Your task to perform on an android device: add a contact in the contacts app Image 0: 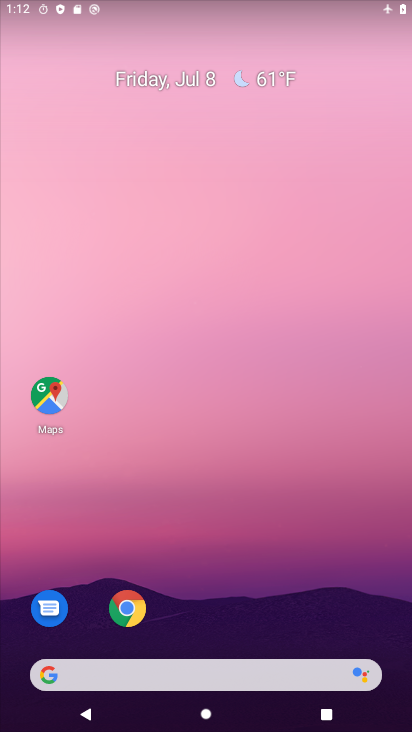
Step 0: drag from (225, 621) to (283, 119)
Your task to perform on an android device: add a contact in the contacts app Image 1: 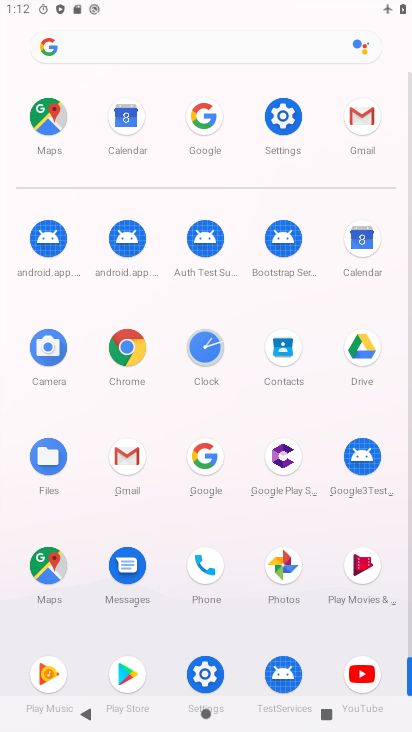
Step 1: click (277, 352)
Your task to perform on an android device: add a contact in the contacts app Image 2: 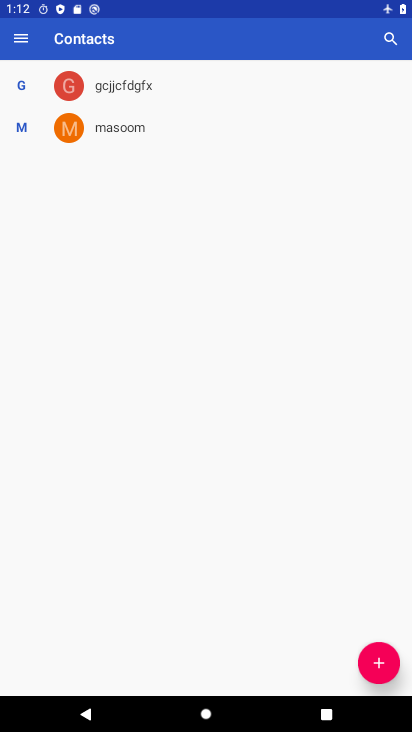
Step 2: click (379, 653)
Your task to perform on an android device: add a contact in the contacts app Image 3: 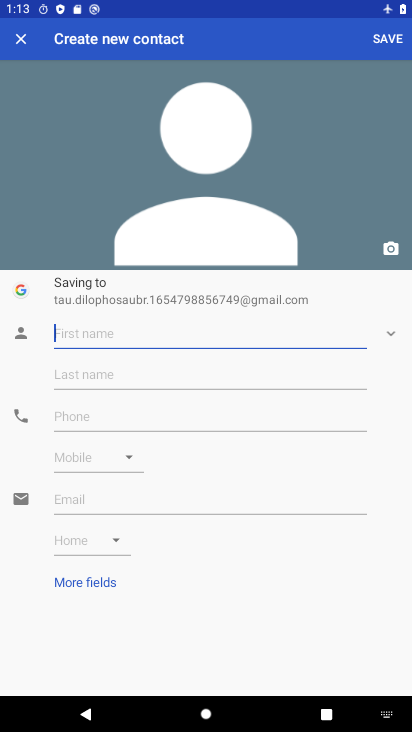
Step 3: type "jhhjhj"
Your task to perform on an android device: add a contact in the contacts app Image 4: 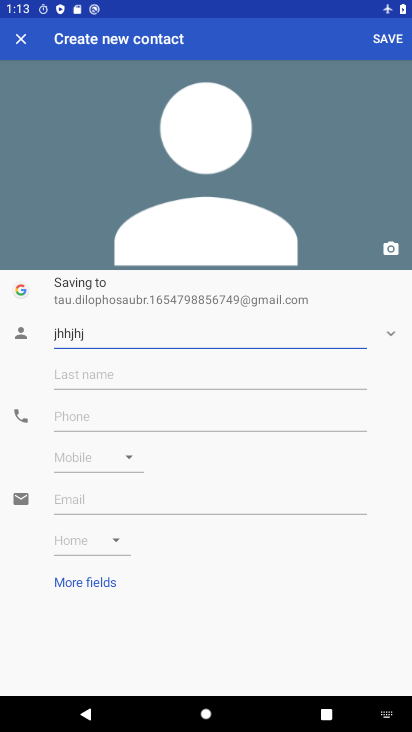
Step 4: click (133, 419)
Your task to perform on an android device: add a contact in the contacts app Image 5: 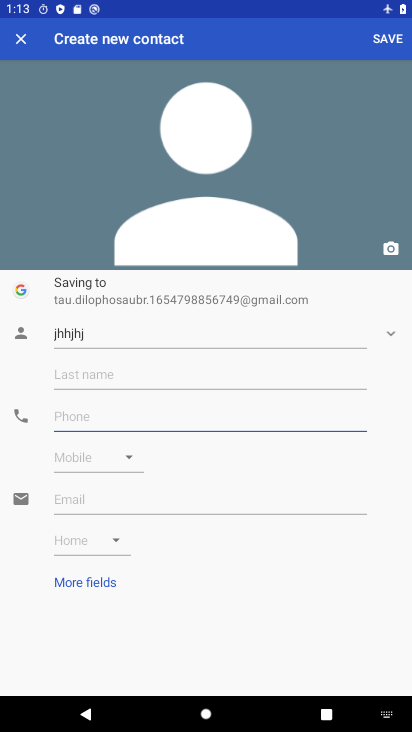
Step 5: type "8968746746746"
Your task to perform on an android device: add a contact in the contacts app Image 6: 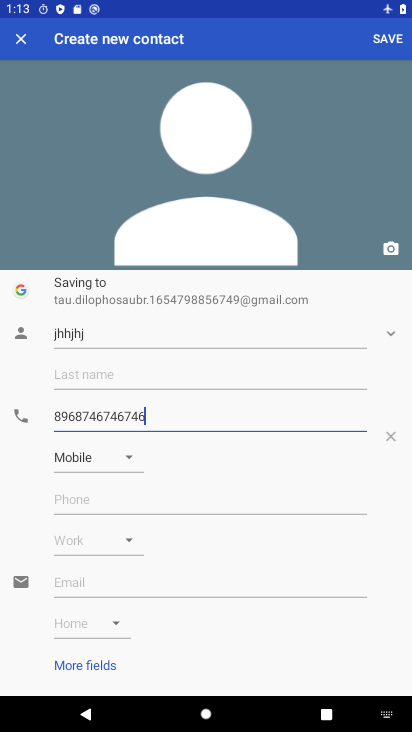
Step 6: click (387, 38)
Your task to perform on an android device: add a contact in the contacts app Image 7: 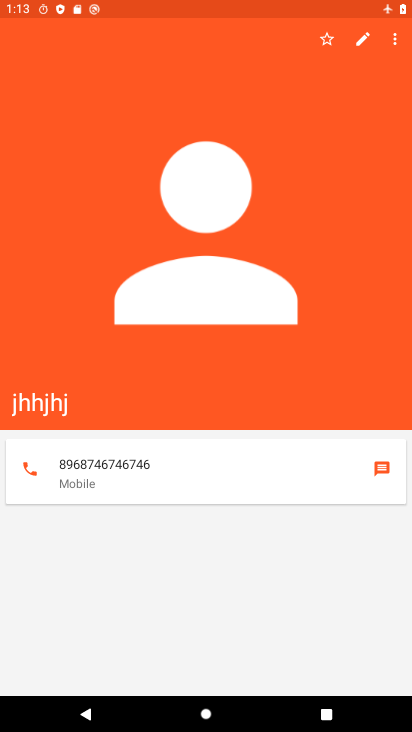
Step 7: task complete